Your task to perform on an android device: toggle priority inbox in the gmail app Image 0: 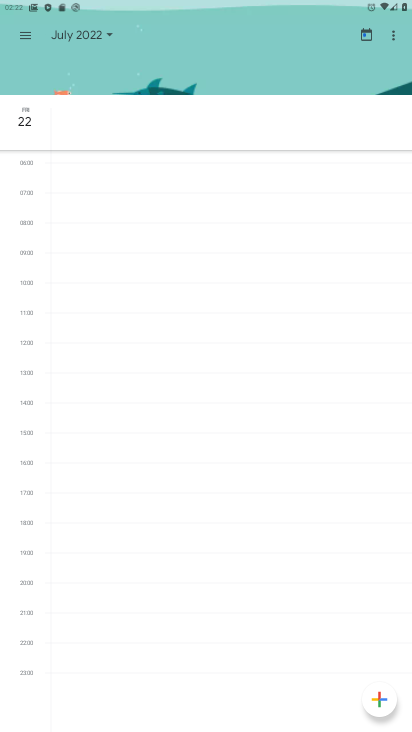
Step 0: press home button
Your task to perform on an android device: toggle priority inbox in the gmail app Image 1: 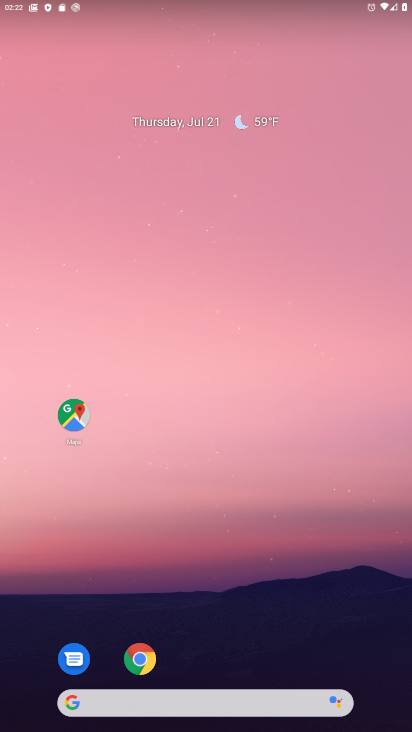
Step 1: drag from (206, 385) to (216, 6)
Your task to perform on an android device: toggle priority inbox in the gmail app Image 2: 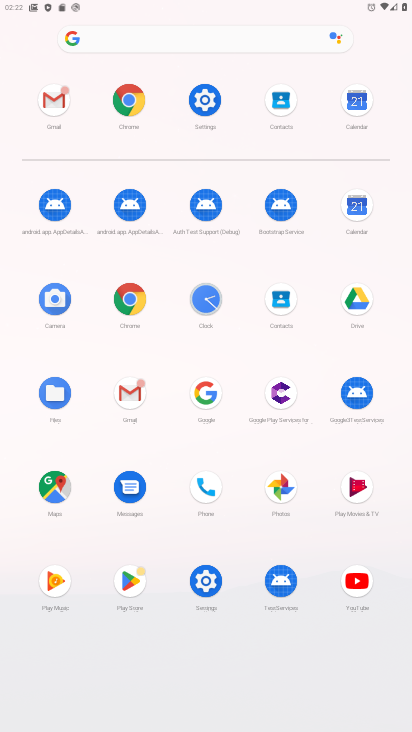
Step 2: click (49, 105)
Your task to perform on an android device: toggle priority inbox in the gmail app Image 3: 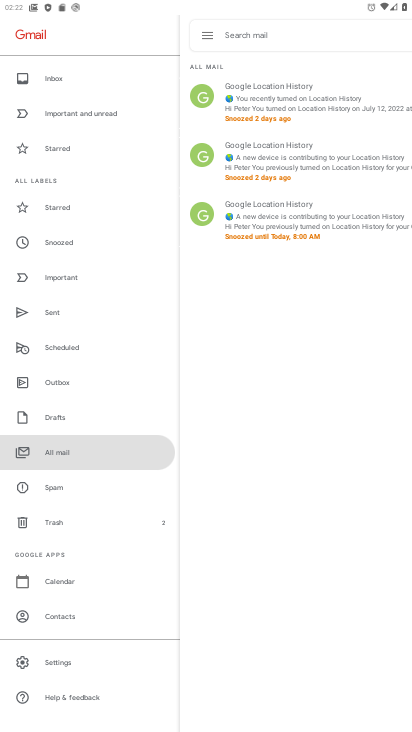
Step 3: click (69, 660)
Your task to perform on an android device: toggle priority inbox in the gmail app Image 4: 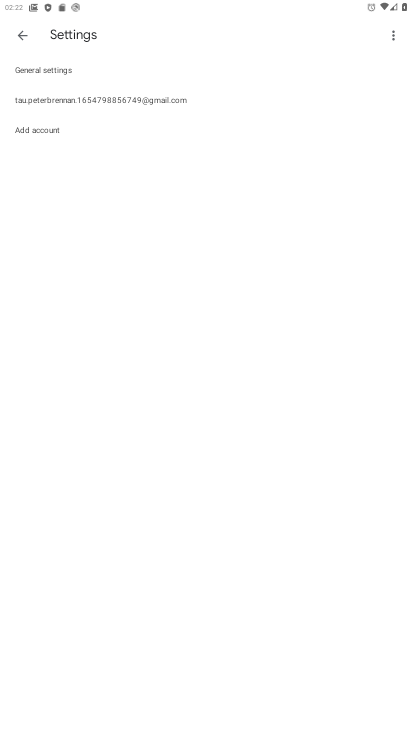
Step 4: click (133, 94)
Your task to perform on an android device: toggle priority inbox in the gmail app Image 5: 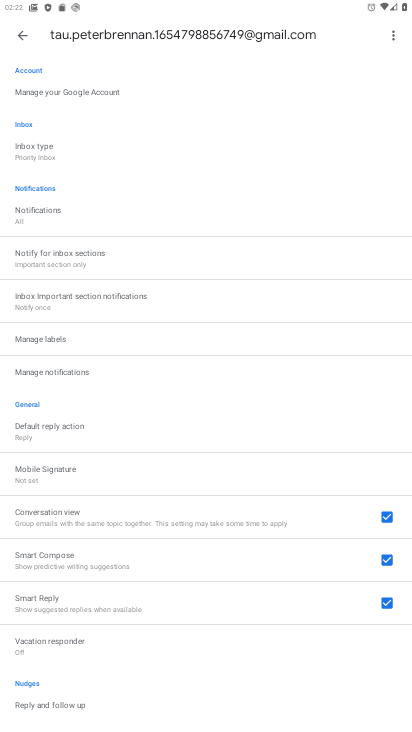
Step 5: click (45, 146)
Your task to perform on an android device: toggle priority inbox in the gmail app Image 6: 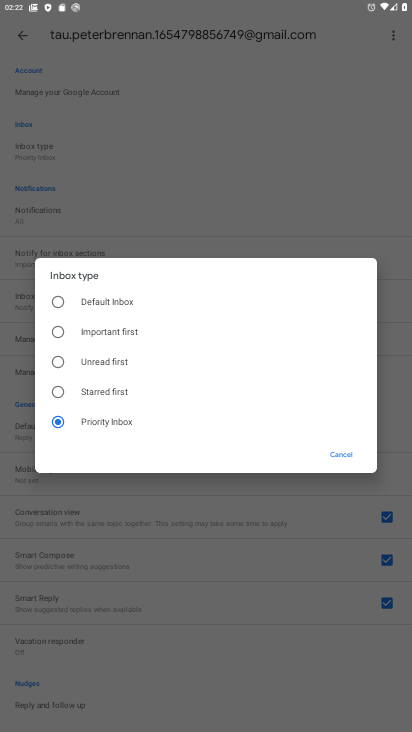
Step 6: click (92, 294)
Your task to perform on an android device: toggle priority inbox in the gmail app Image 7: 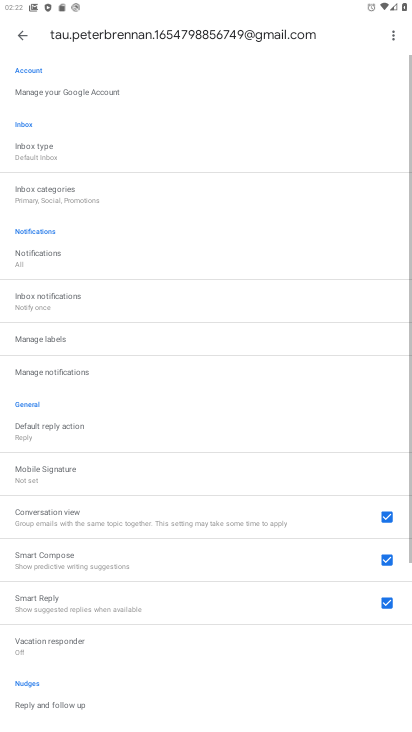
Step 7: task complete